Your task to perform on an android device: allow notifications from all sites in the chrome app Image 0: 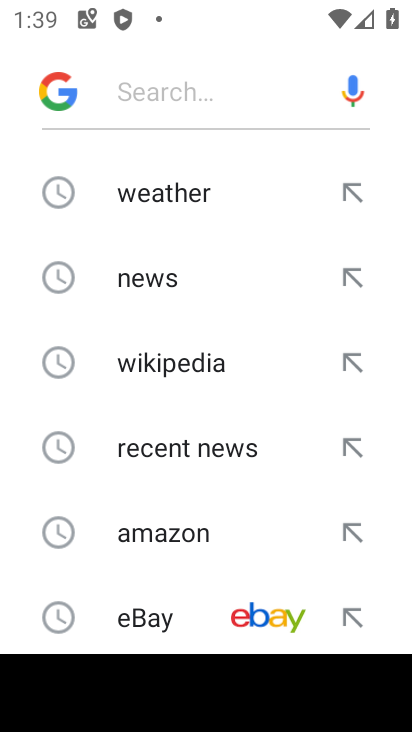
Step 0: press home button
Your task to perform on an android device: allow notifications from all sites in the chrome app Image 1: 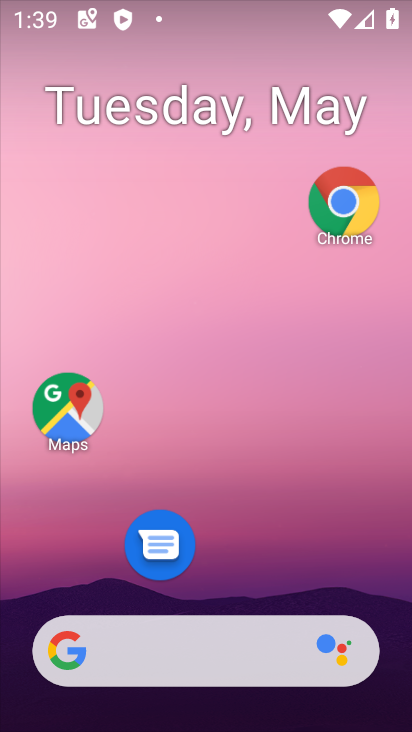
Step 1: click (342, 208)
Your task to perform on an android device: allow notifications from all sites in the chrome app Image 2: 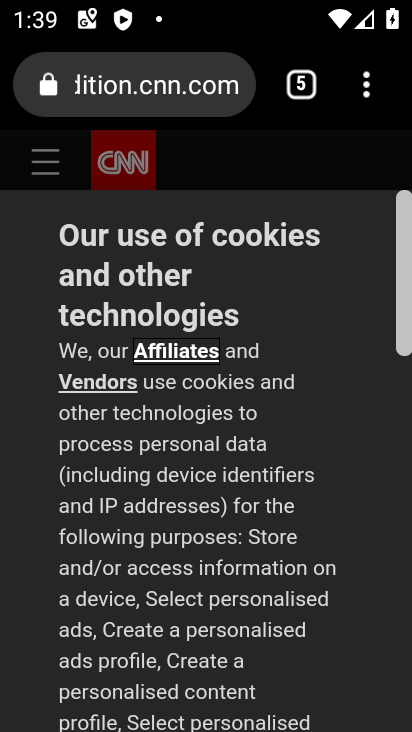
Step 2: click (389, 90)
Your task to perform on an android device: allow notifications from all sites in the chrome app Image 3: 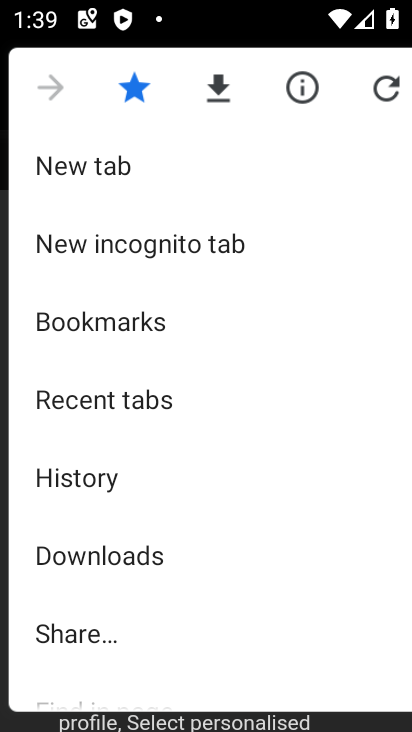
Step 3: drag from (128, 569) to (221, 89)
Your task to perform on an android device: allow notifications from all sites in the chrome app Image 4: 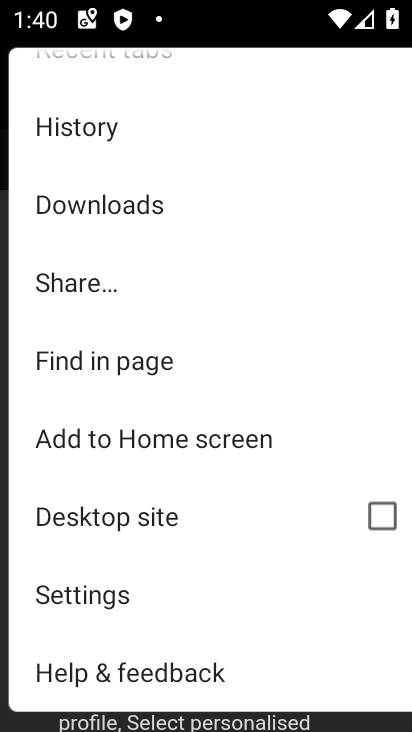
Step 4: drag from (122, 585) to (204, 185)
Your task to perform on an android device: allow notifications from all sites in the chrome app Image 5: 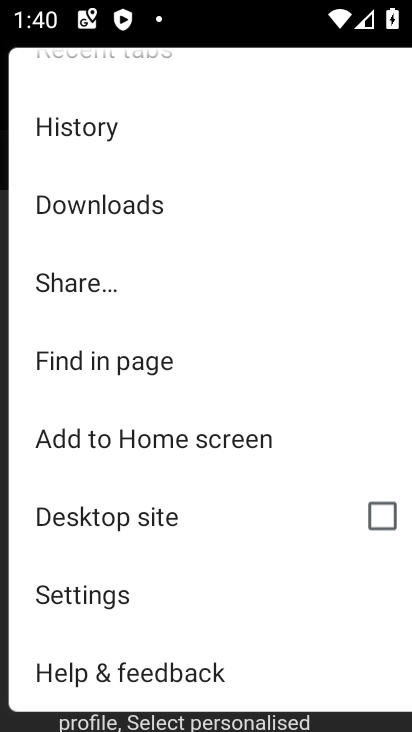
Step 5: click (94, 598)
Your task to perform on an android device: allow notifications from all sites in the chrome app Image 6: 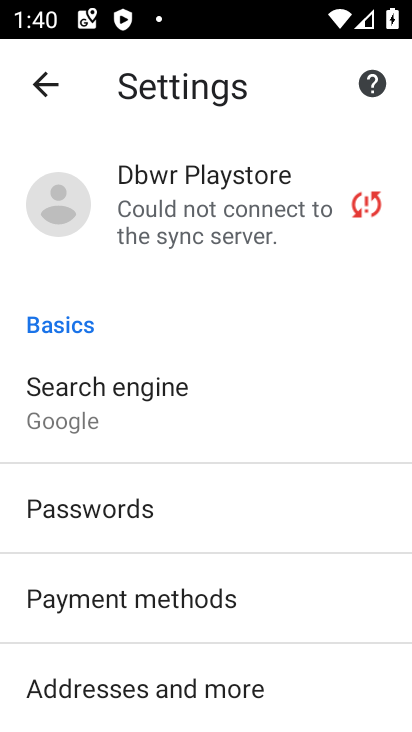
Step 6: drag from (146, 665) to (205, 175)
Your task to perform on an android device: allow notifications from all sites in the chrome app Image 7: 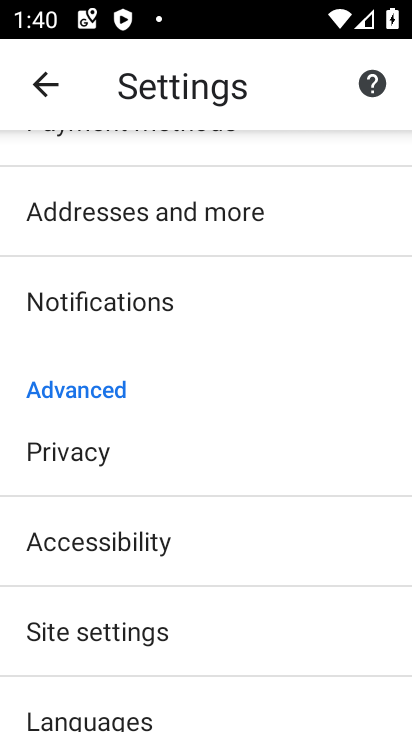
Step 7: click (164, 308)
Your task to perform on an android device: allow notifications from all sites in the chrome app Image 8: 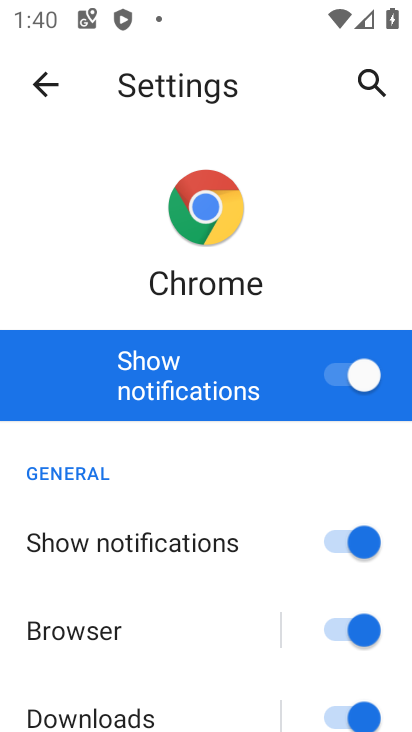
Step 8: task complete